Your task to perform on an android device: What's the weather going to be this weekend? Image 0: 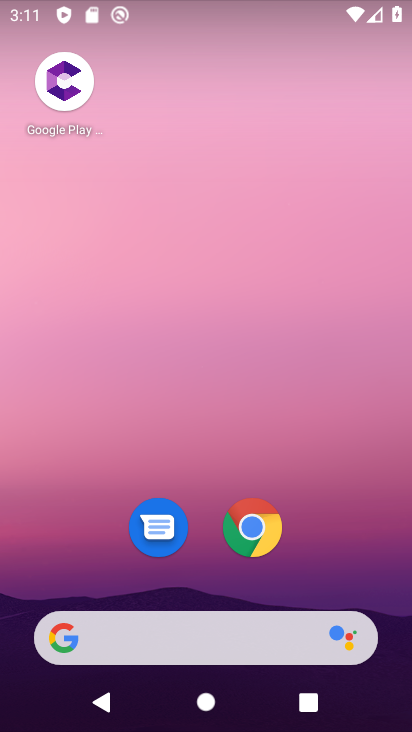
Step 0: drag from (26, 275) to (397, 276)
Your task to perform on an android device: What's the weather going to be this weekend? Image 1: 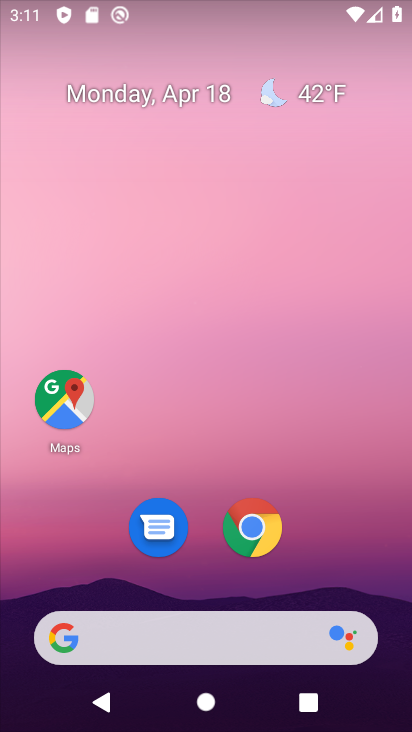
Step 1: click (318, 89)
Your task to perform on an android device: What's the weather going to be this weekend? Image 2: 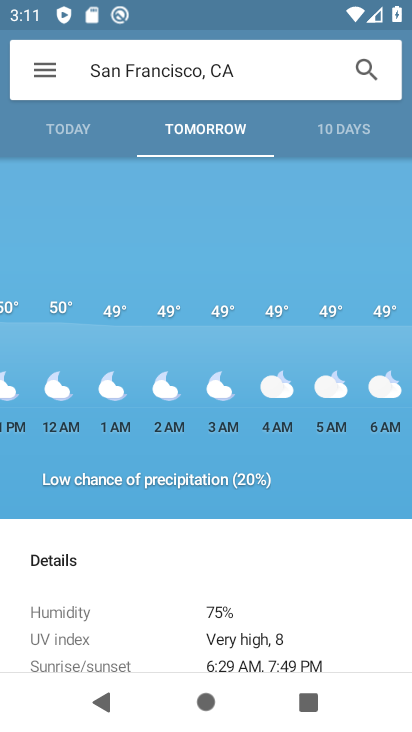
Step 2: click (346, 124)
Your task to perform on an android device: What's the weather going to be this weekend? Image 3: 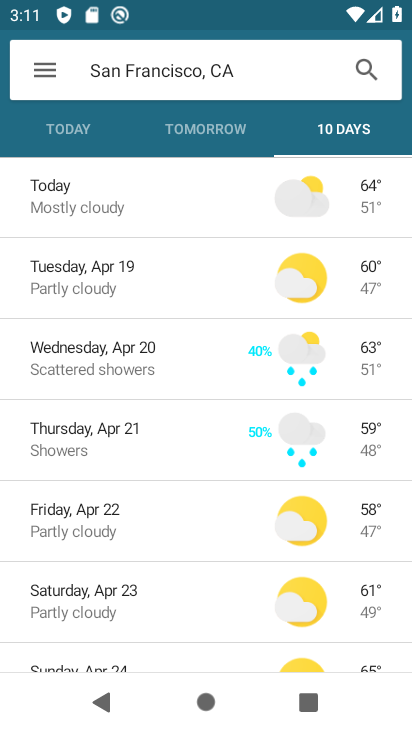
Step 3: task complete